Your task to perform on an android device: Go to display settings Image 0: 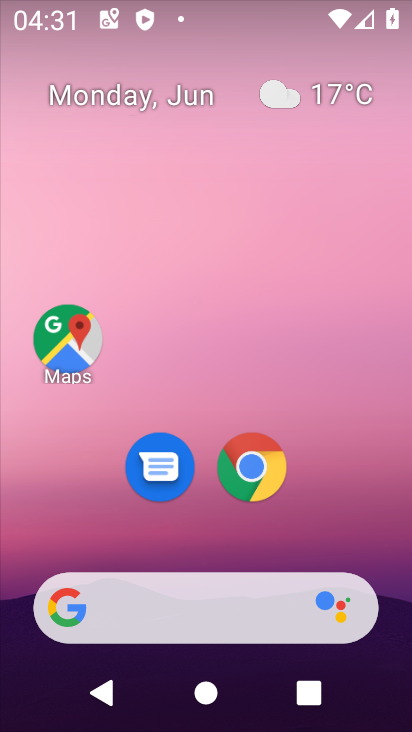
Step 0: drag from (222, 524) to (269, 261)
Your task to perform on an android device: Go to display settings Image 1: 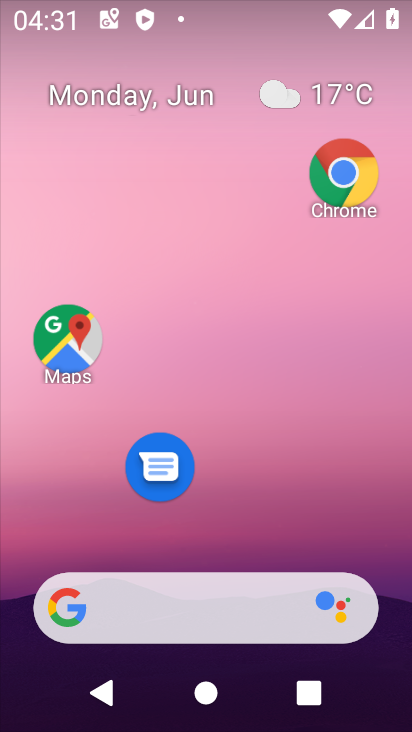
Step 1: drag from (261, 529) to (288, 208)
Your task to perform on an android device: Go to display settings Image 2: 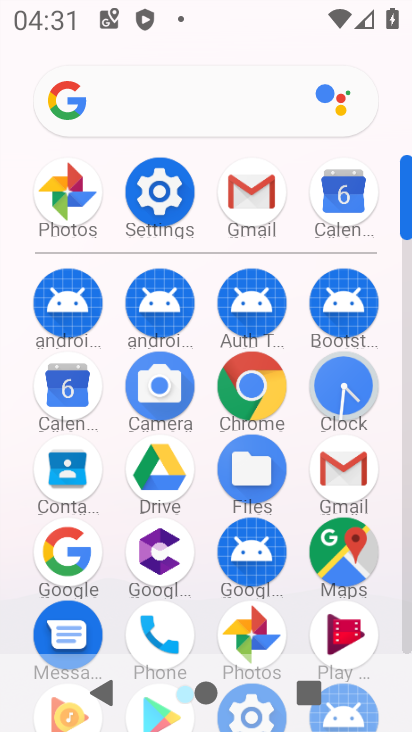
Step 2: click (159, 206)
Your task to perform on an android device: Go to display settings Image 3: 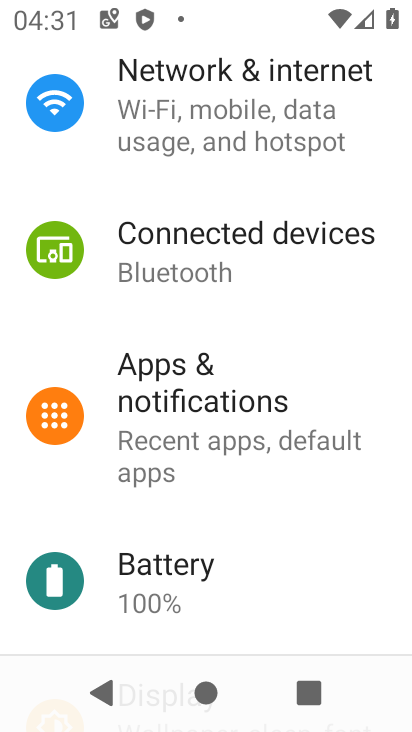
Step 3: drag from (186, 506) to (283, 213)
Your task to perform on an android device: Go to display settings Image 4: 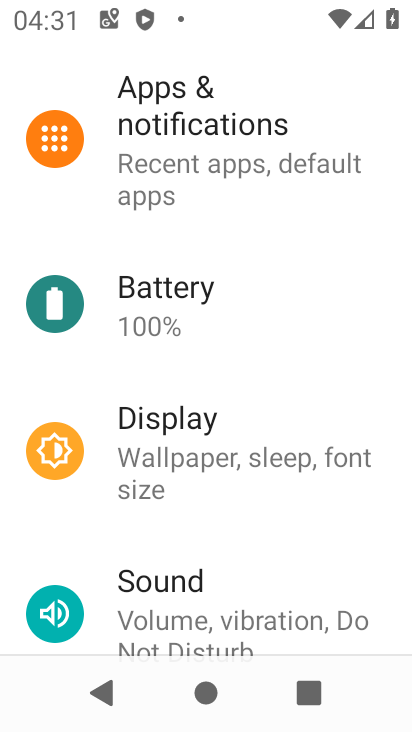
Step 4: click (195, 440)
Your task to perform on an android device: Go to display settings Image 5: 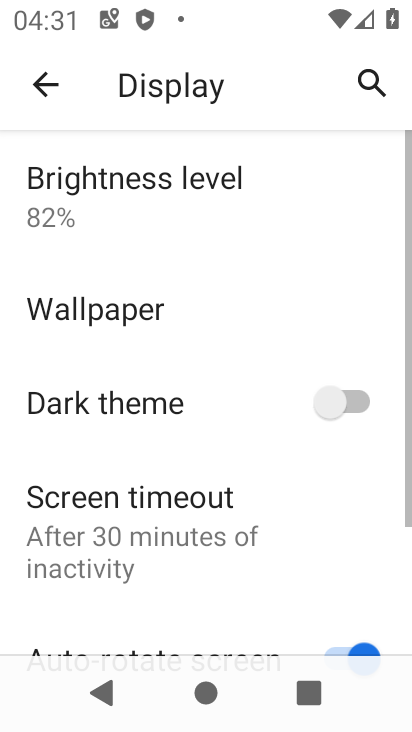
Step 5: task complete